Your task to perform on an android device: move an email to a new category in the gmail app Image 0: 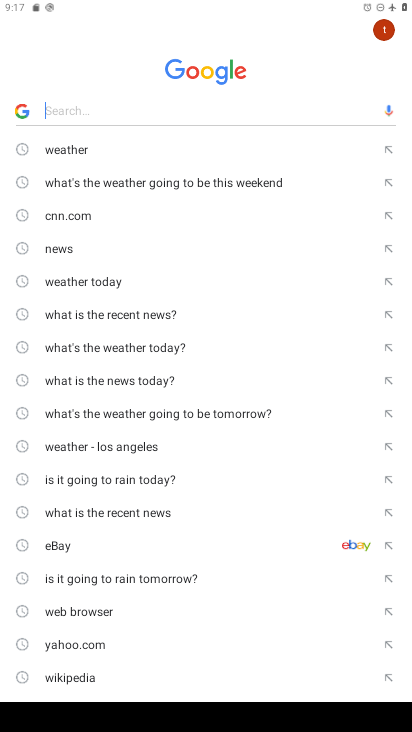
Step 0: press home button
Your task to perform on an android device: move an email to a new category in the gmail app Image 1: 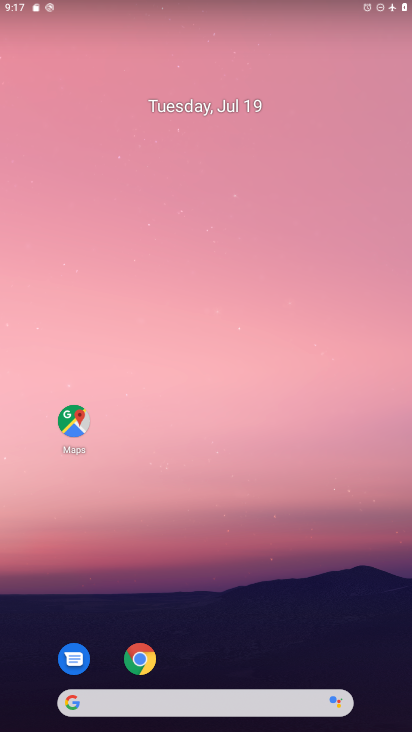
Step 1: drag from (163, 583) to (209, 254)
Your task to perform on an android device: move an email to a new category in the gmail app Image 2: 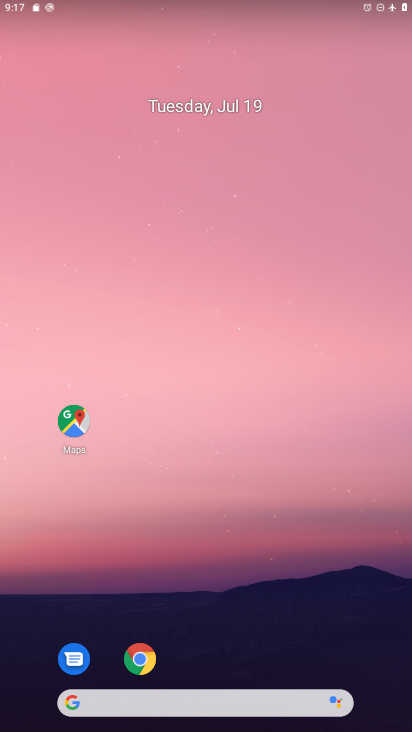
Step 2: drag from (240, 579) to (242, 185)
Your task to perform on an android device: move an email to a new category in the gmail app Image 3: 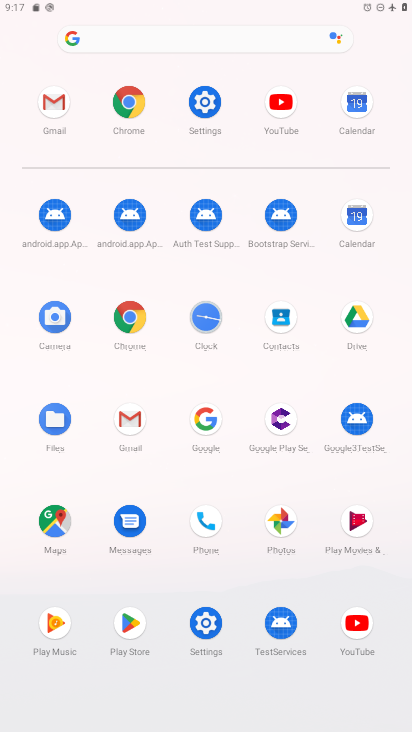
Step 3: click (58, 103)
Your task to perform on an android device: move an email to a new category in the gmail app Image 4: 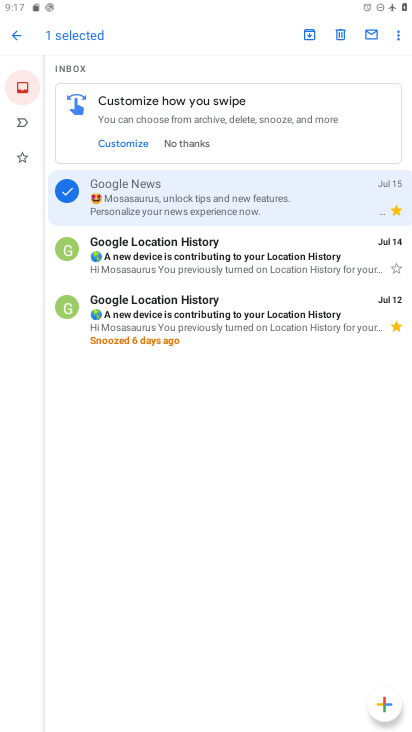
Step 4: click (399, 32)
Your task to perform on an android device: move an email to a new category in the gmail app Image 5: 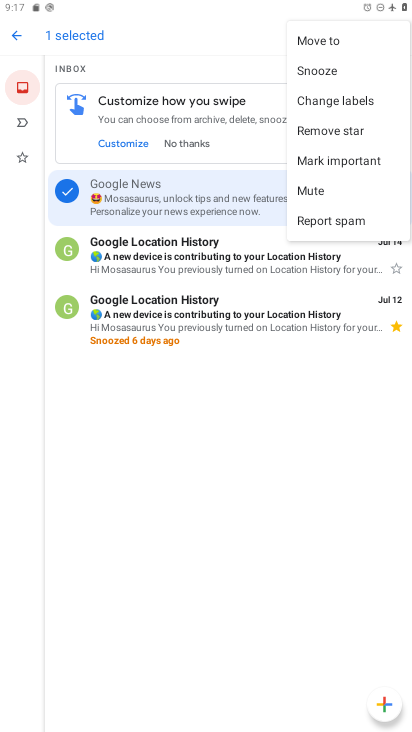
Step 5: click (316, 29)
Your task to perform on an android device: move an email to a new category in the gmail app Image 6: 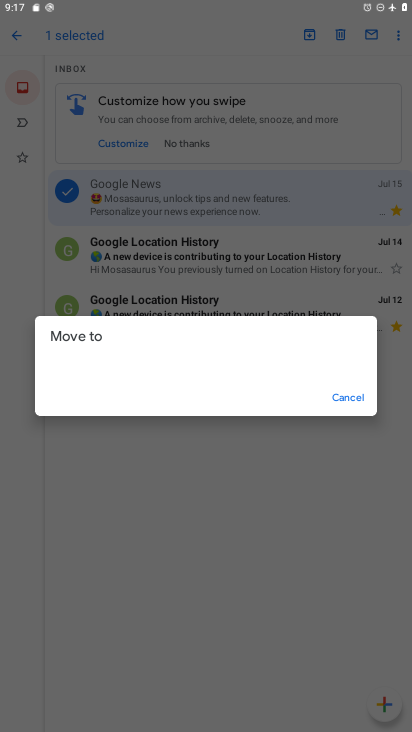
Step 6: click (236, 354)
Your task to perform on an android device: move an email to a new category in the gmail app Image 7: 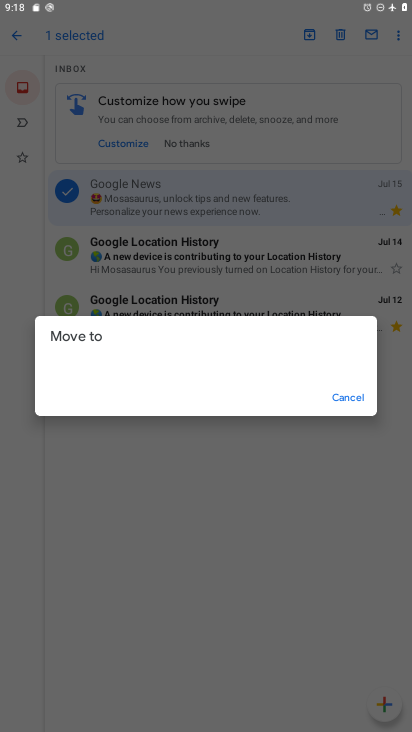
Step 7: task complete